Your task to perform on an android device: See recent photos Image 0: 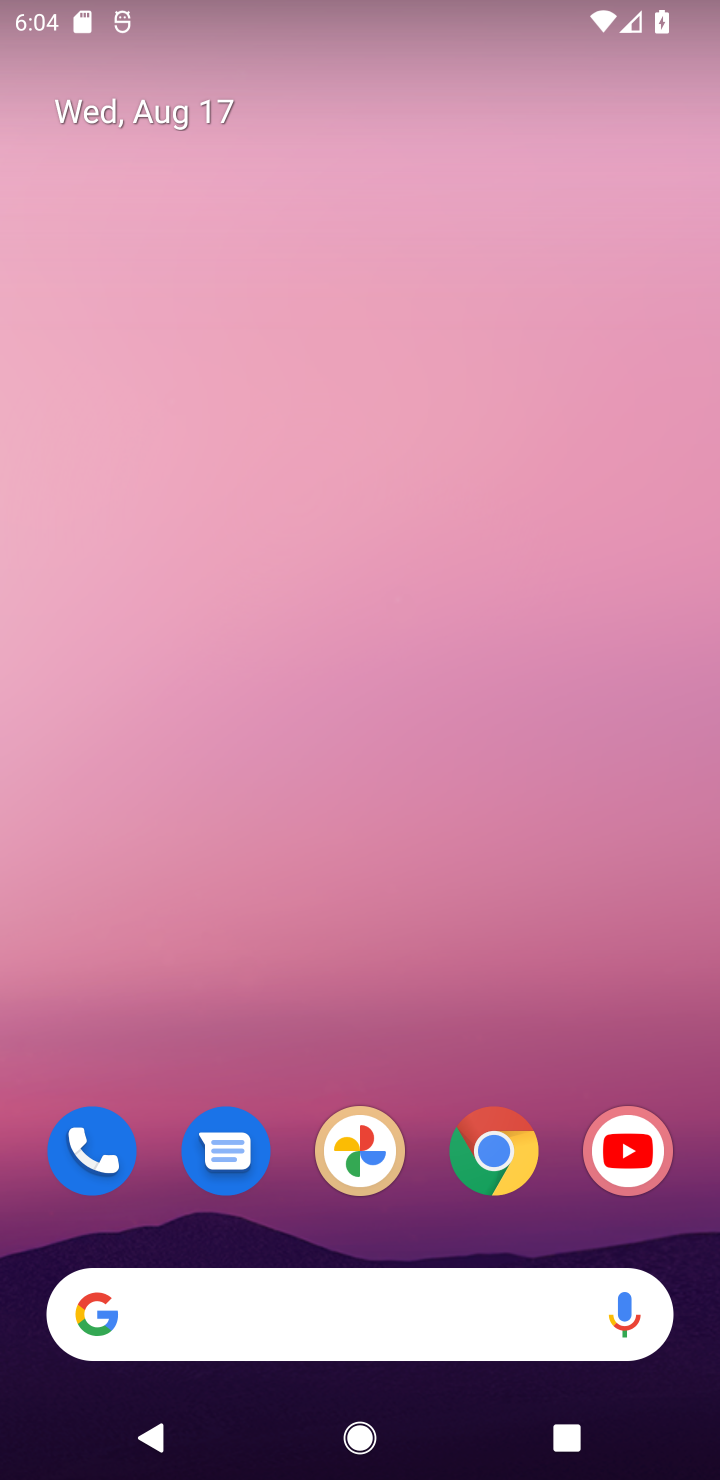
Step 0: click (380, 1177)
Your task to perform on an android device: See recent photos Image 1: 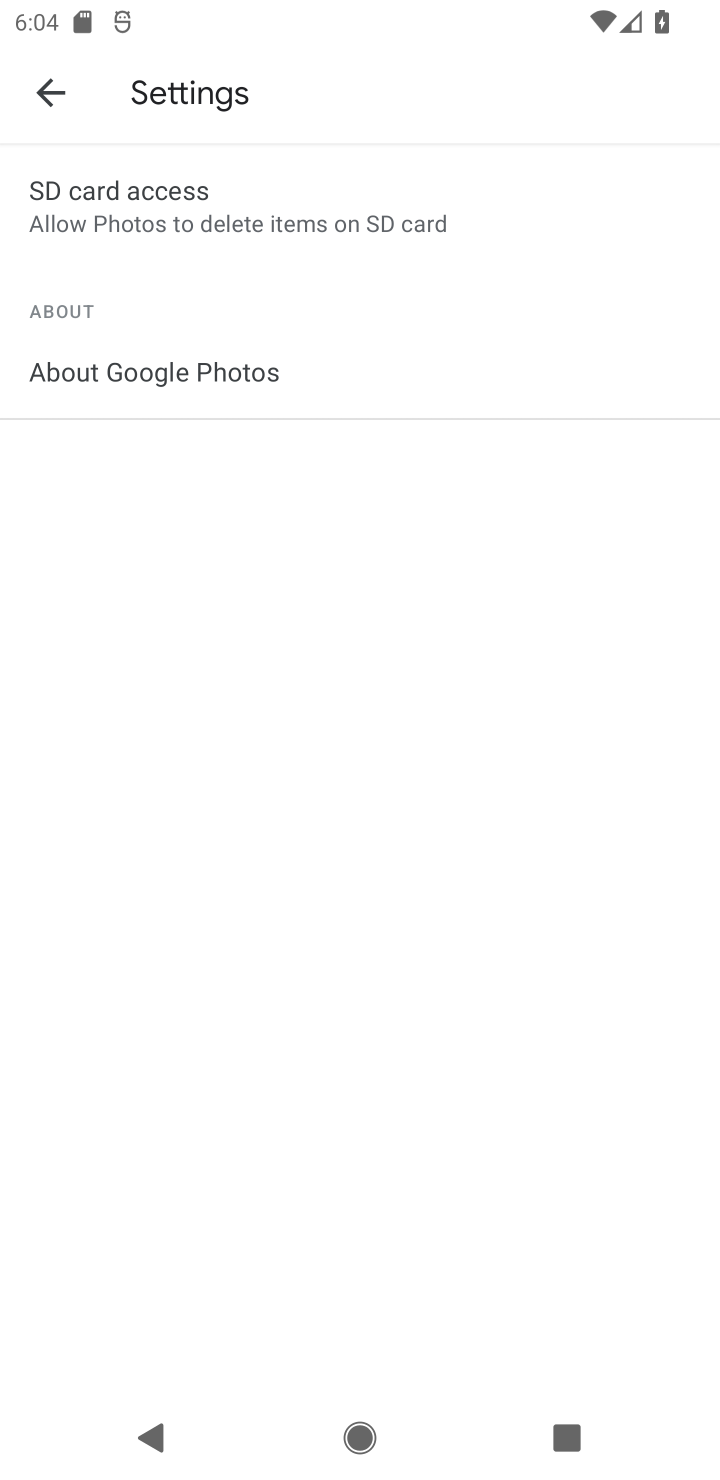
Step 1: task complete